Your task to perform on an android device: change text size in settings app Image 0: 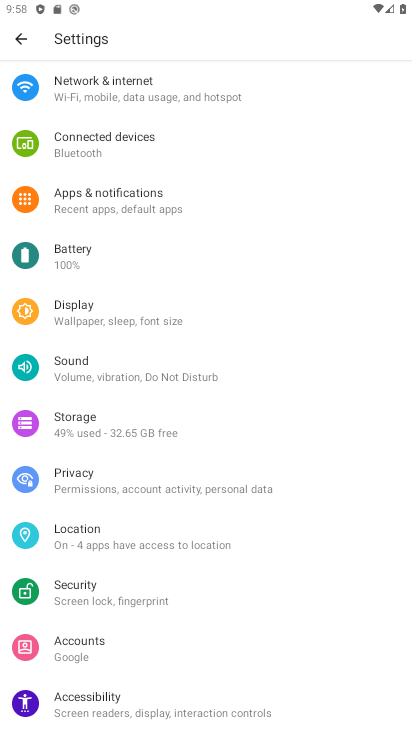
Step 0: drag from (144, 568) to (148, 302)
Your task to perform on an android device: change text size in settings app Image 1: 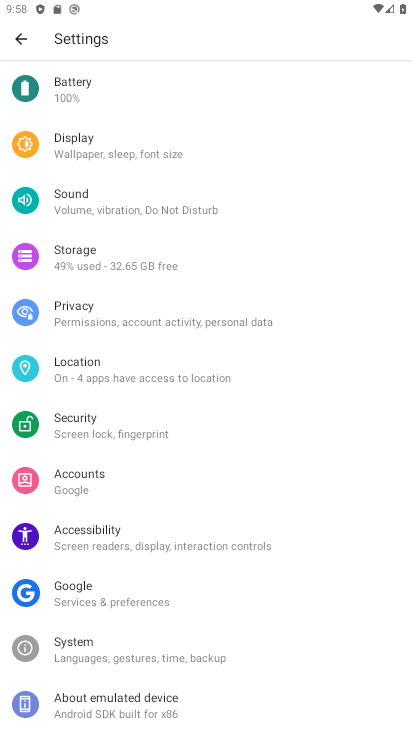
Step 1: click (132, 156)
Your task to perform on an android device: change text size in settings app Image 2: 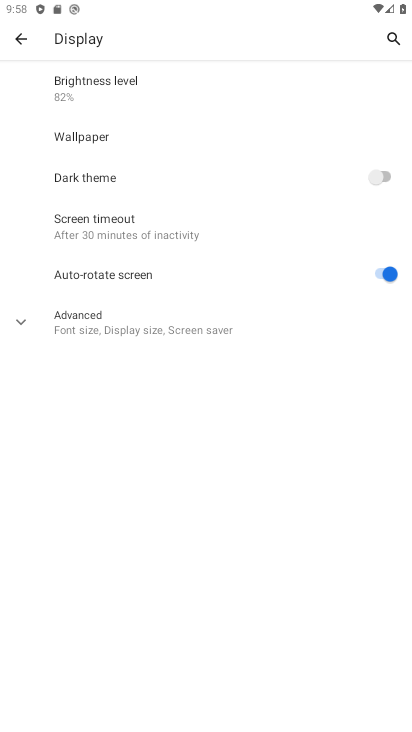
Step 2: click (173, 319)
Your task to perform on an android device: change text size in settings app Image 3: 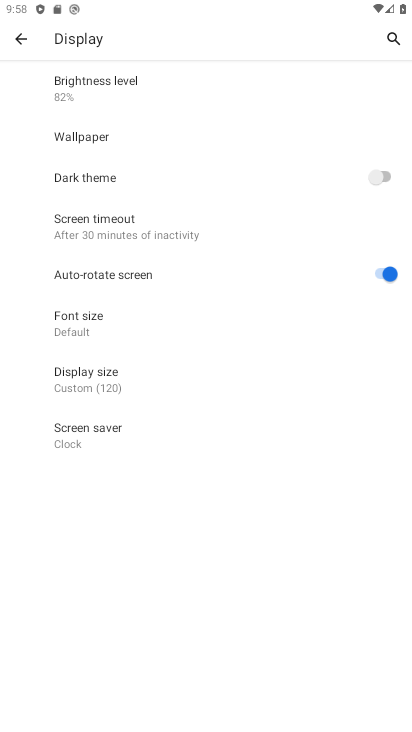
Step 3: click (137, 322)
Your task to perform on an android device: change text size in settings app Image 4: 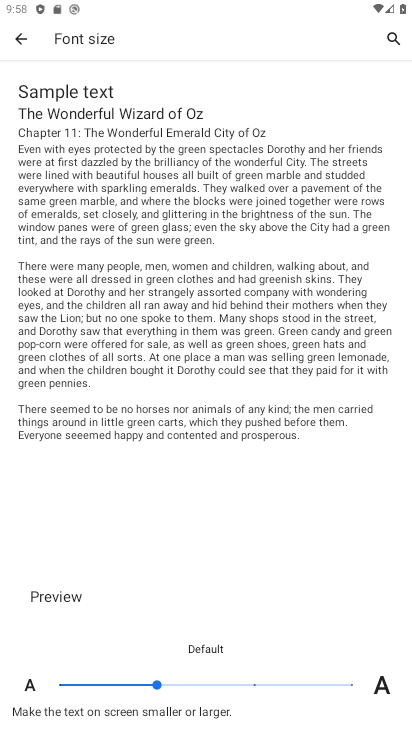
Step 4: task complete